Your task to perform on an android device: delete the emails in spam in the gmail app Image 0: 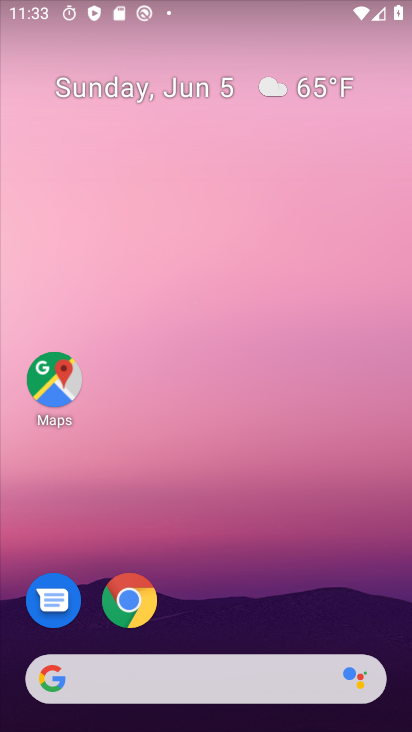
Step 0: drag from (289, 655) to (181, 75)
Your task to perform on an android device: delete the emails in spam in the gmail app Image 1: 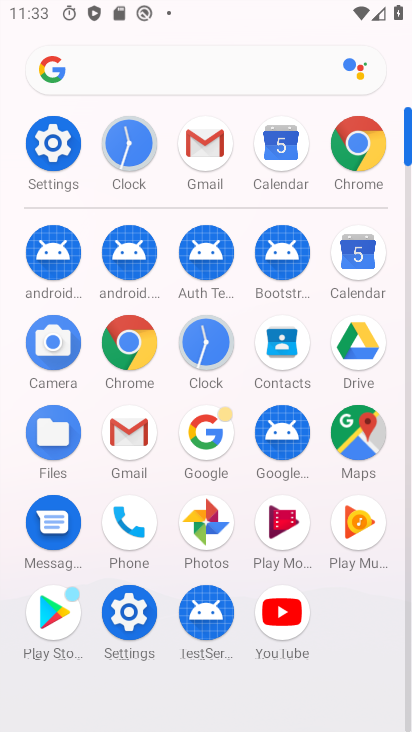
Step 1: click (127, 434)
Your task to perform on an android device: delete the emails in spam in the gmail app Image 2: 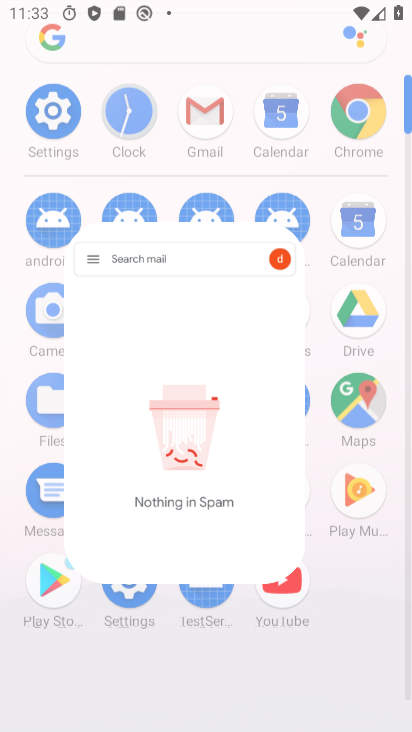
Step 2: click (127, 432)
Your task to perform on an android device: delete the emails in spam in the gmail app Image 3: 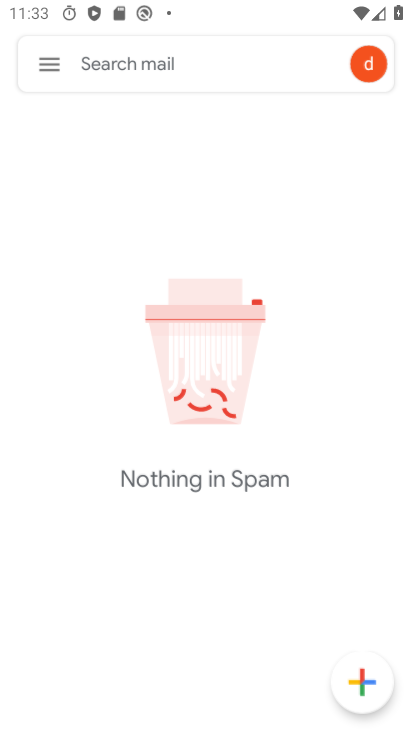
Step 3: click (115, 430)
Your task to perform on an android device: delete the emails in spam in the gmail app Image 4: 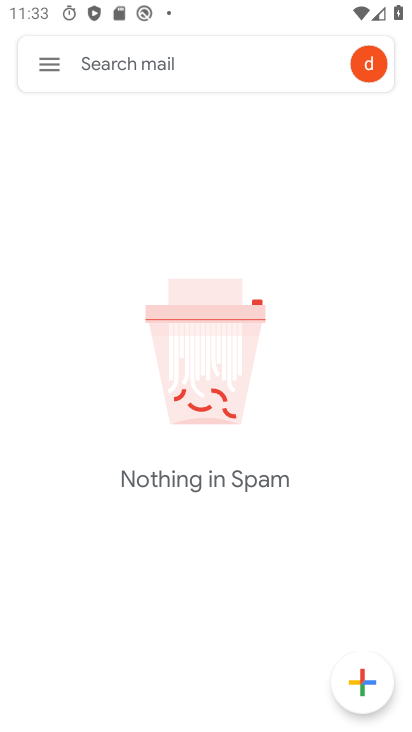
Step 4: click (43, 70)
Your task to perform on an android device: delete the emails in spam in the gmail app Image 5: 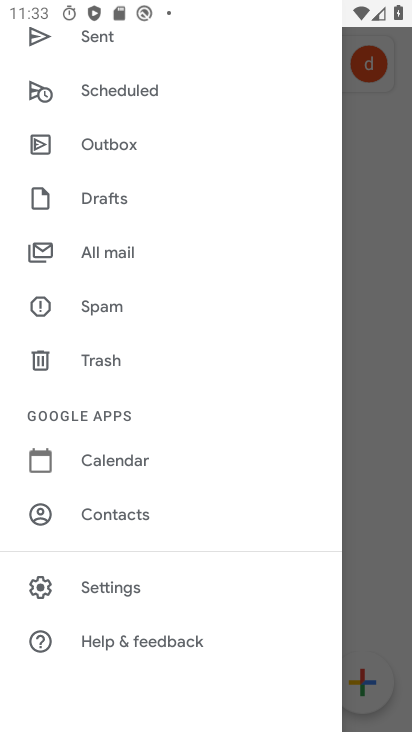
Step 5: click (102, 301)
Your task to perform on an android device: delete the emails in spam in the gmail app Image 6: 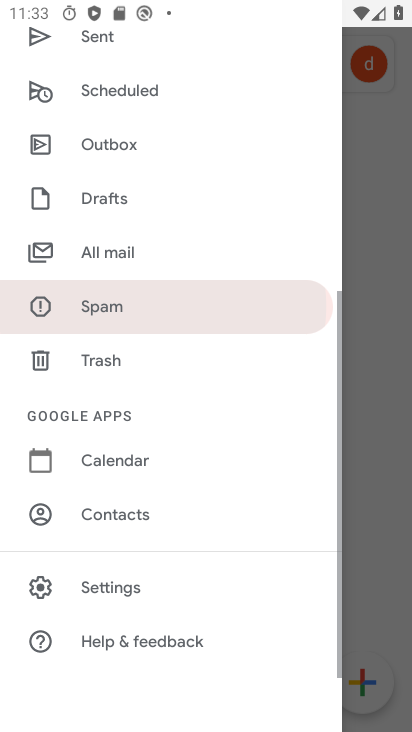
Step 6: click (102, 301)
Your task to perform on an android device: delete the emails in spam in the gmail app Image 7: 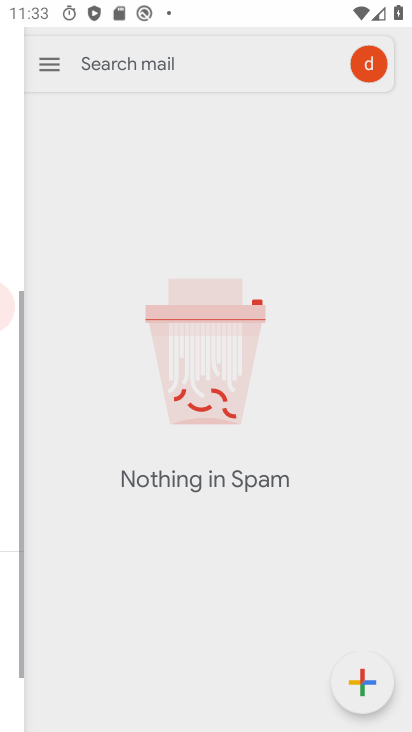
Step 7: click (102, 301)
Your task to perform on an android device: delete the emails in spam in the gmail app Image 8: 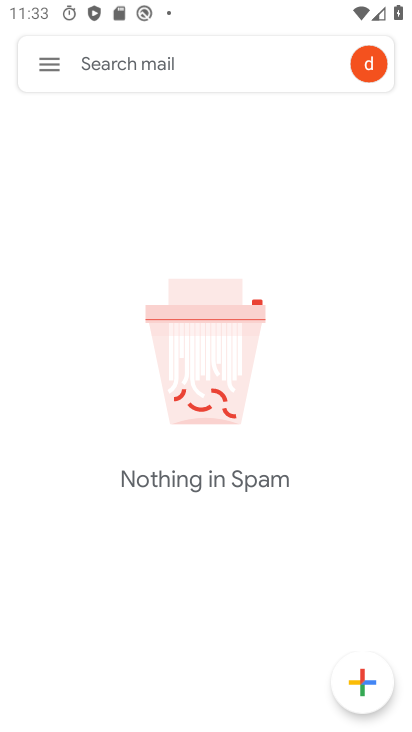
Step 8: task complete